Your task to perform on an android device: change notifications settings Image 0: 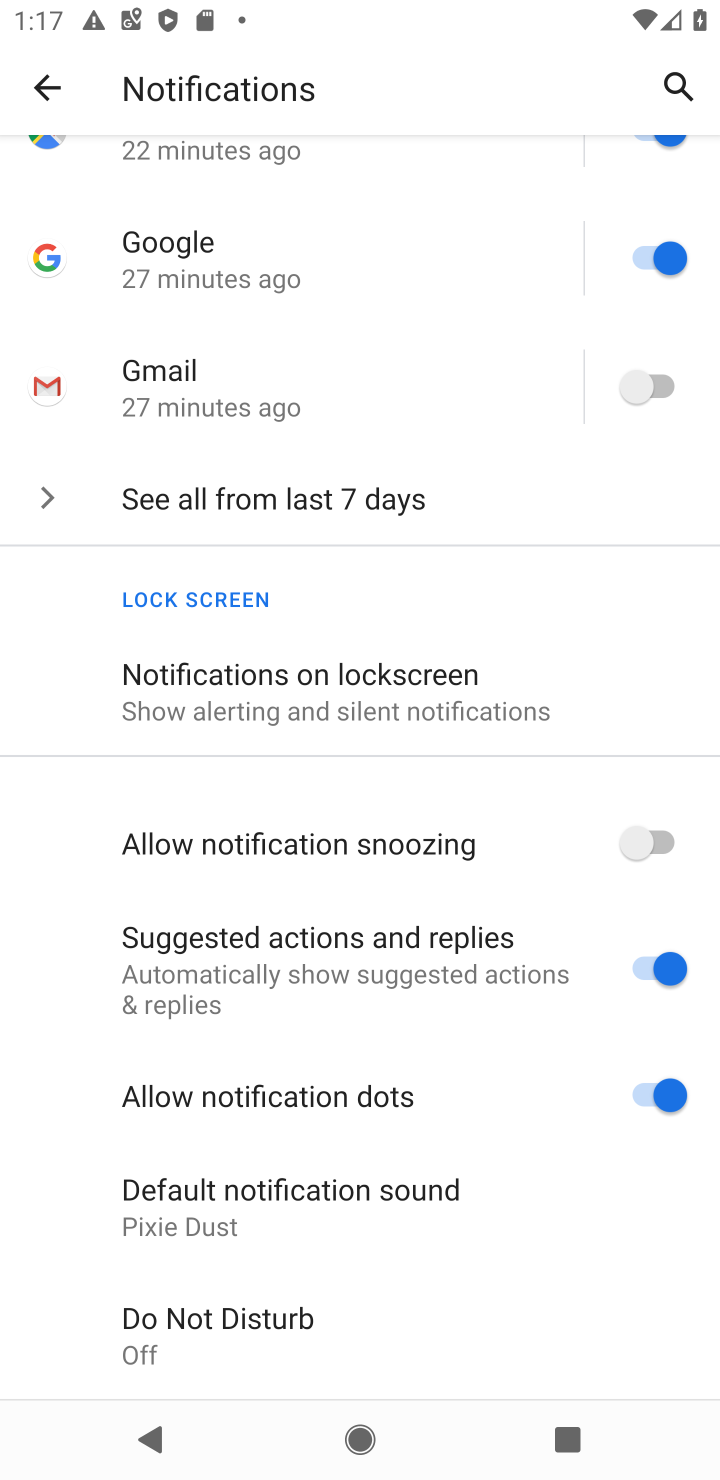
Step 0: drag from (274, 1061) to (293, 399)
Your task to perform on an android device: change notifications settings Image 1: 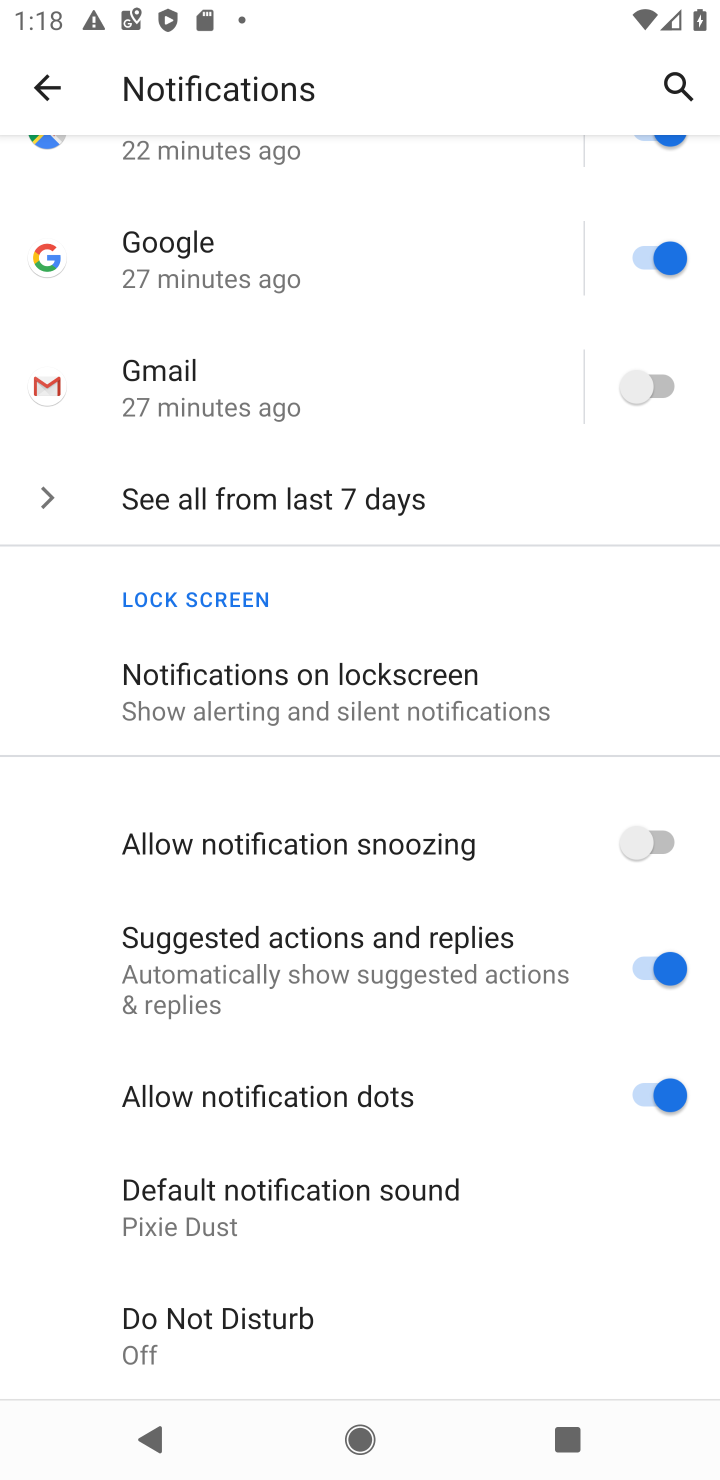
Step 1: drag from (404, 545) to (392, 1456)
Your task to perform on an android device: change notifications settings Image 2: 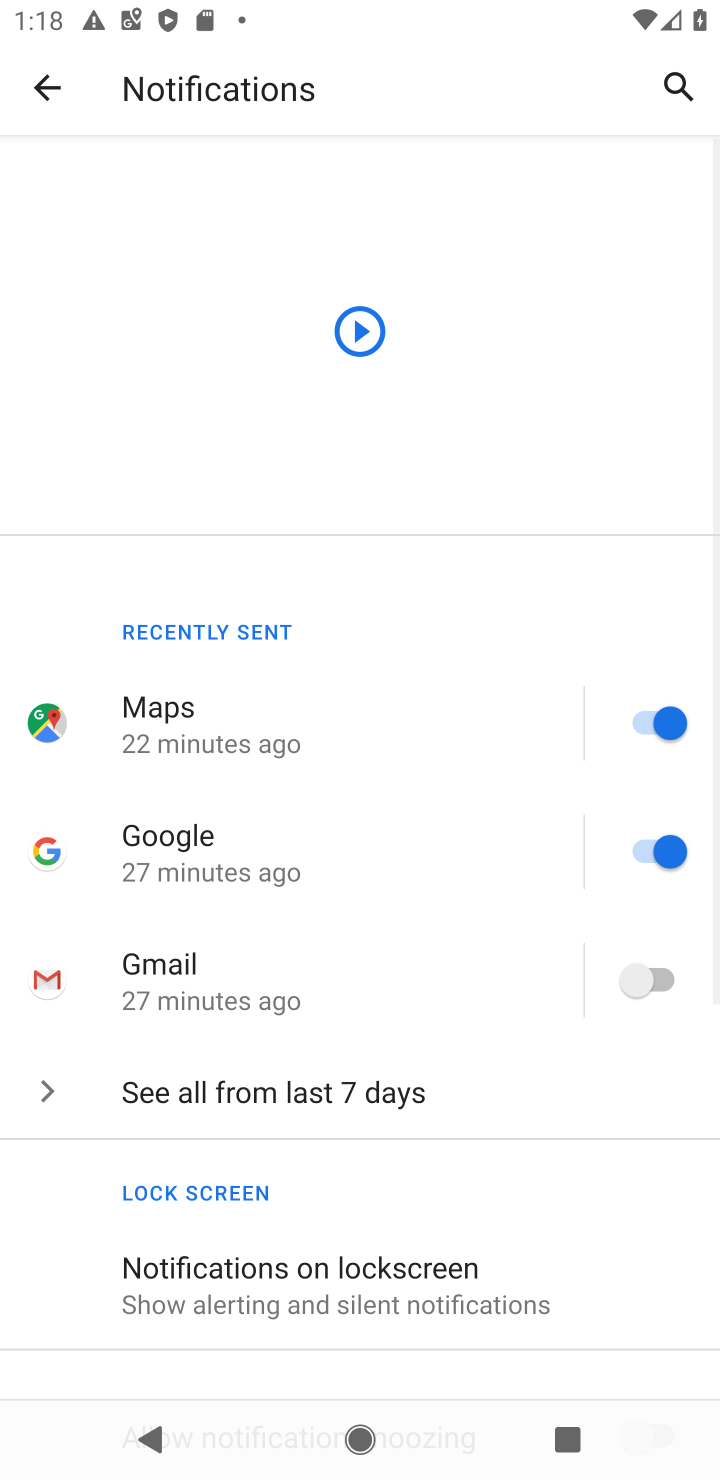
Step 2: click (253, 1096)
Your task to perform on an android device: change notifications settings Image 3: 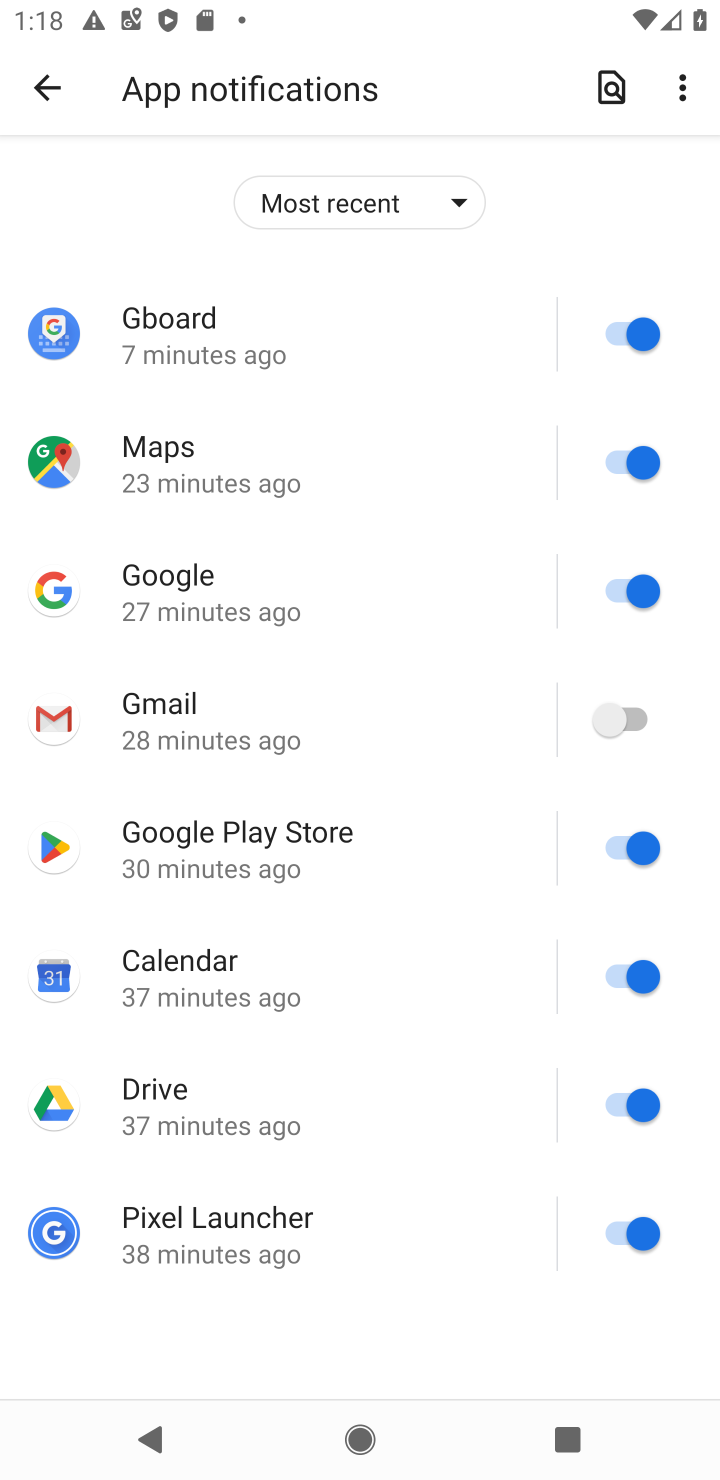
Step 3: click (602, 326)
Your task to perform on an android device: change notifications settings Image 4: 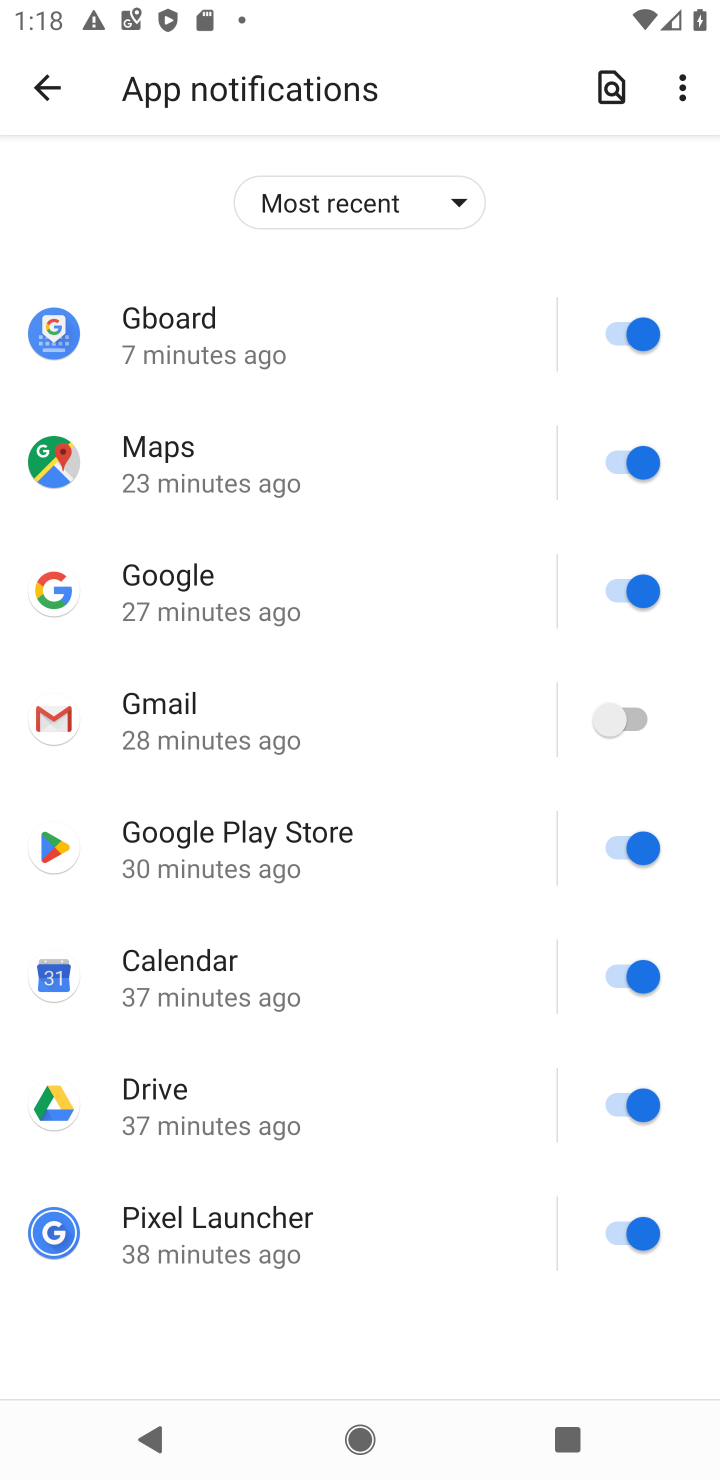
Step 4: drag from (589, 453) to (598, 601)
Your task to perform on an android device: change notifications settings Image 5: 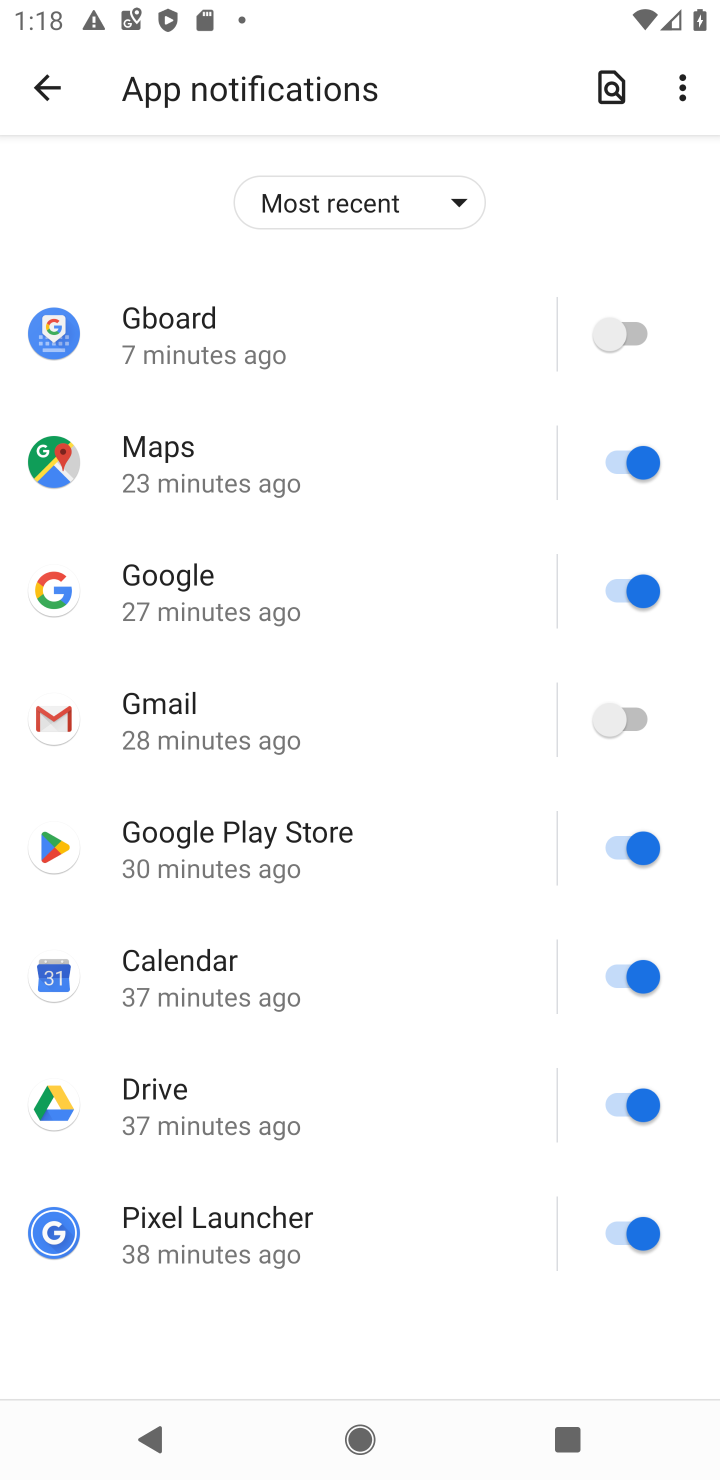
Step 5: click (592, 840)
Your task to perform on an android device: change notifications settings Image 6: 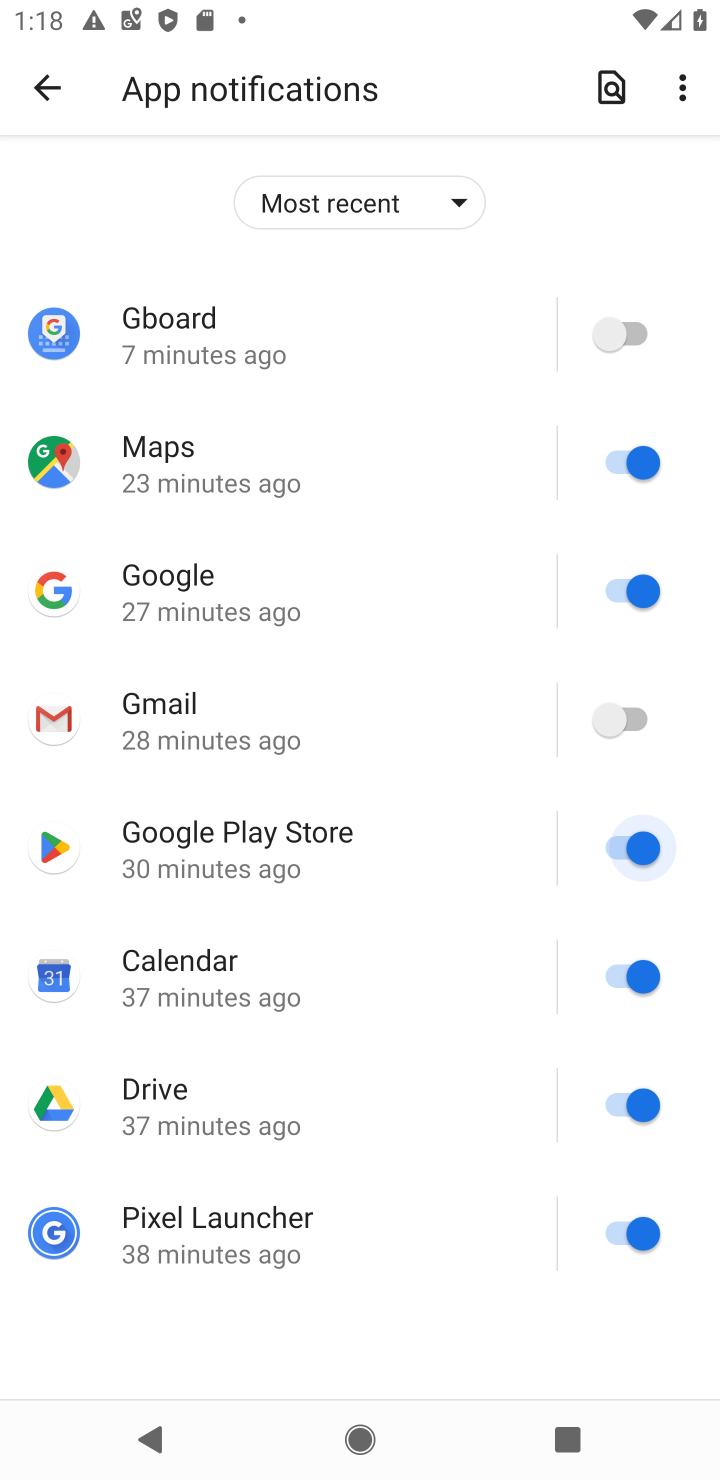
Step 6: click (607, 960)
Your task to perform on an android device: change notifications settings Image 7: 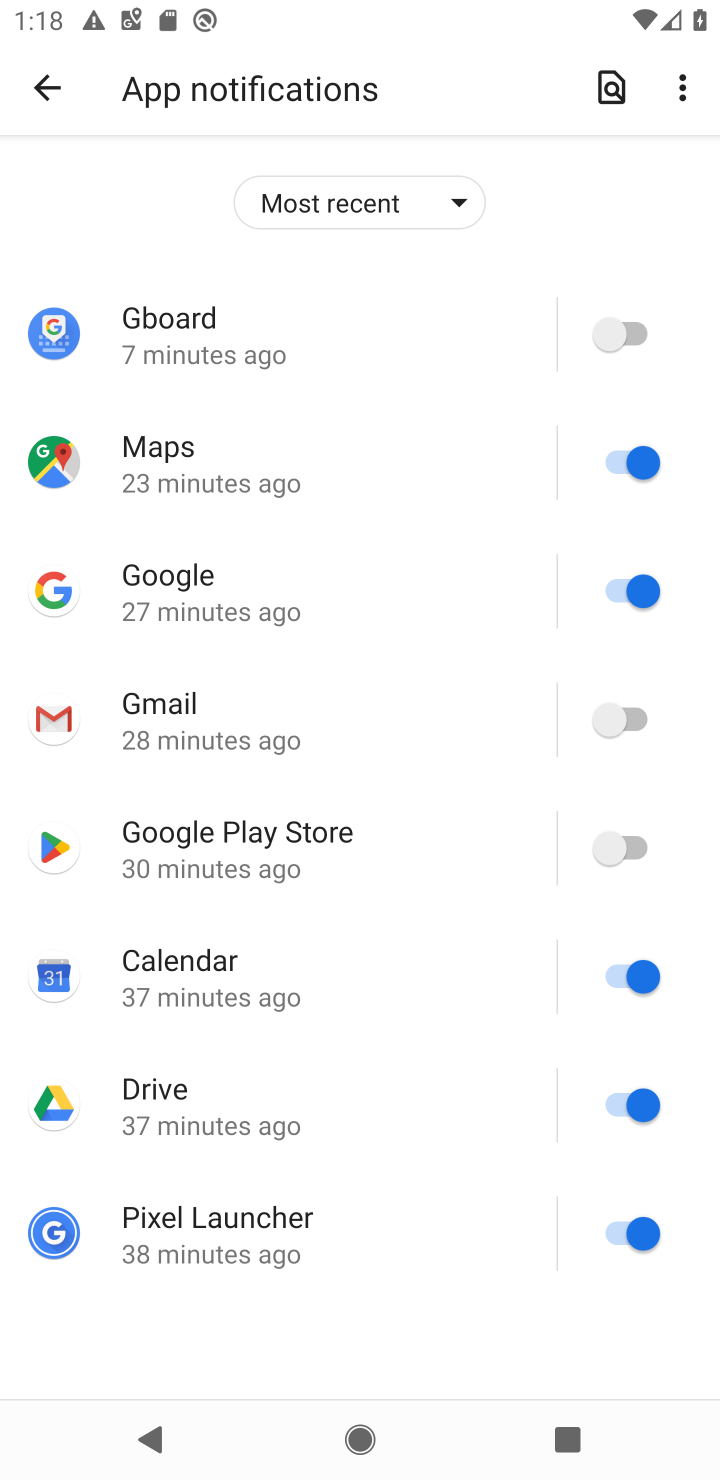
Step 7: click (613, 1107)
Your task to perform on an android device: change notifications settings Image 8: 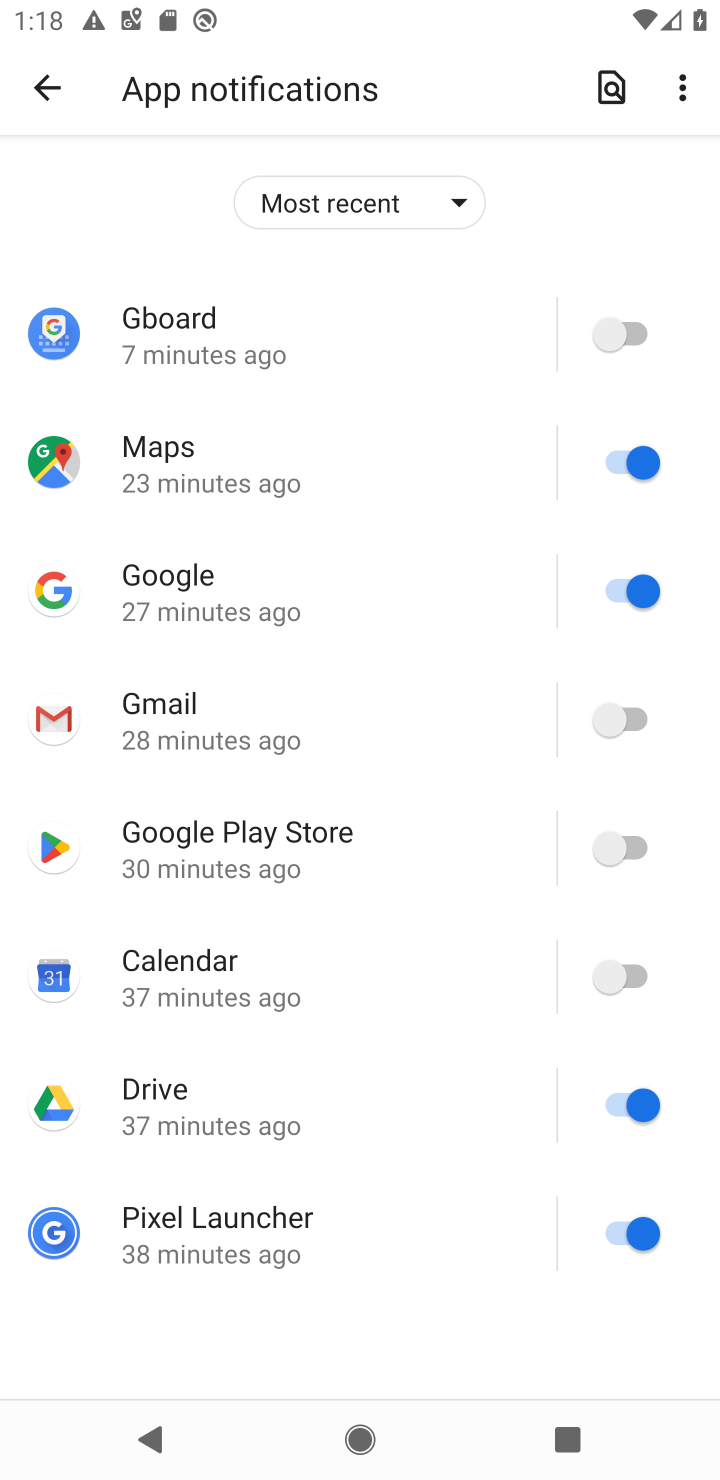
Step 8: click (611, 1242)
Your task to perform on an android device: change notifications settings Image 9: 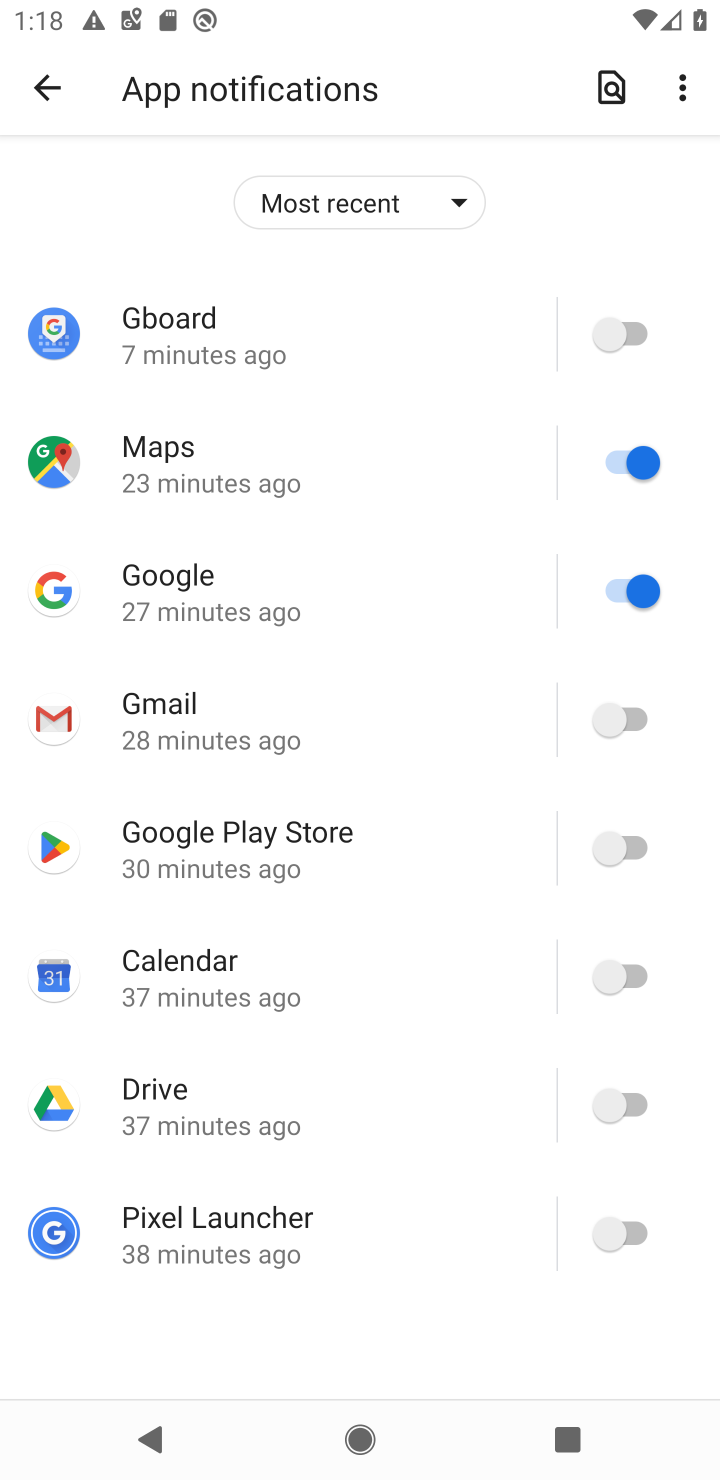
Step 9: click (605, 587)
Your task to perform on an android device: change notifications settings Image 10: 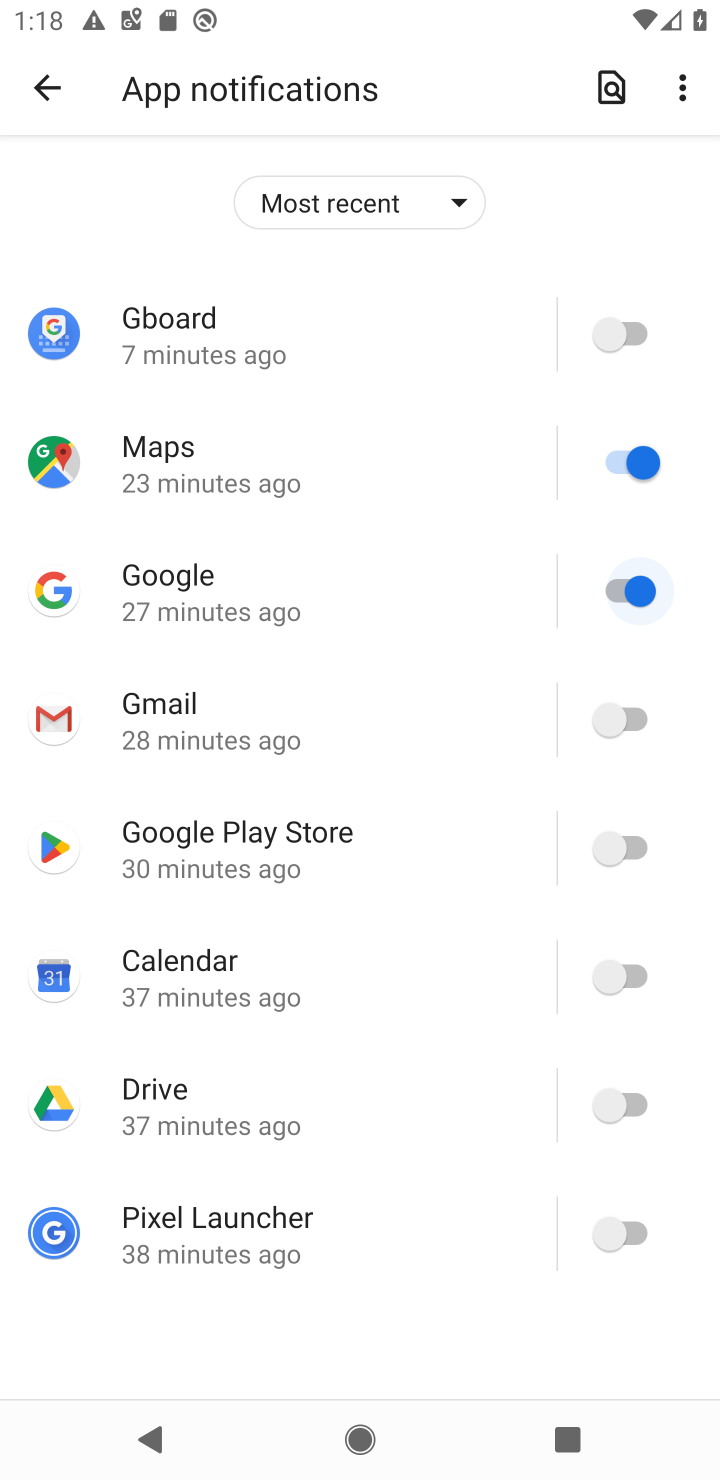
Step 10: click (590, 455)
Your task to perform on an android device: change notifications settings Image 11: 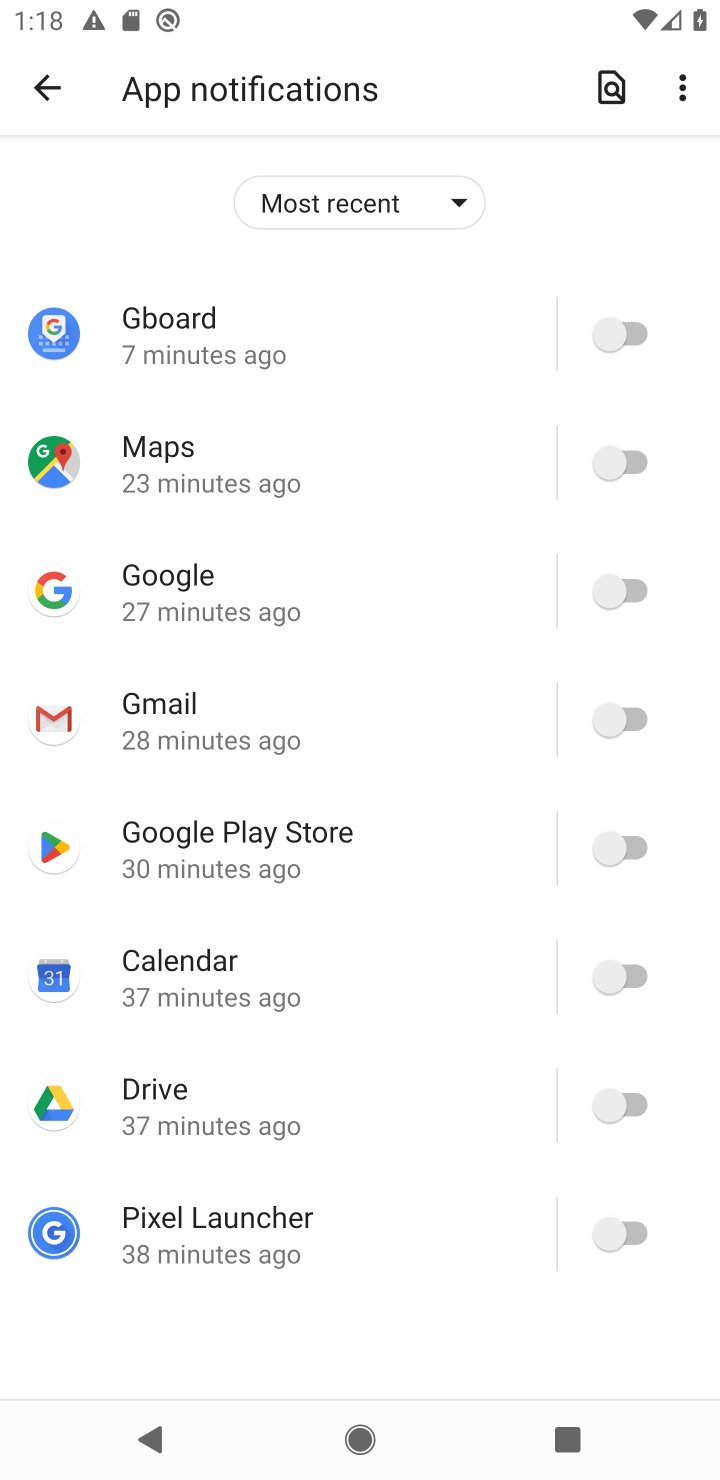
Step 11: task complete